Your task to perform on an android device: toggle show notifications on the lock screen Image 0: 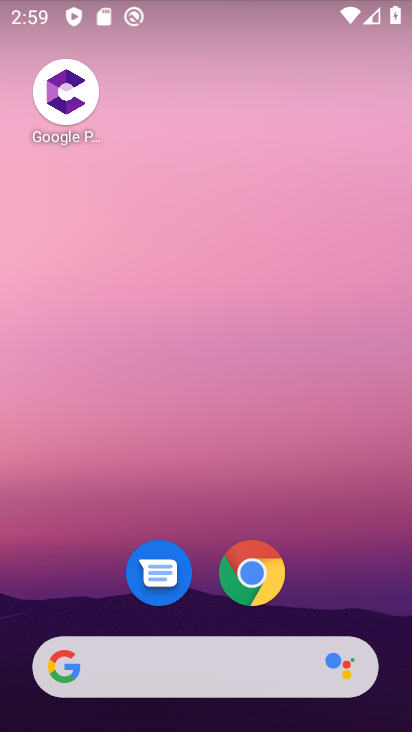
Step 0: drag from (342, 551) to (357, 40)
Your task to perform on an android device: toggle show notifications on the lock screen Image 1: 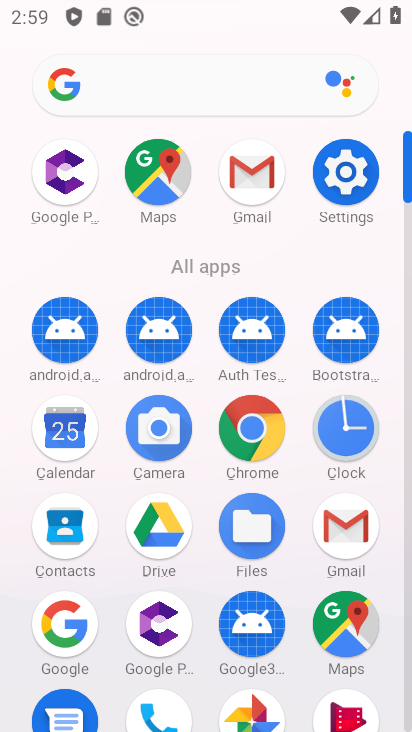
Step 1: click (351, 190)
Your task to perform on an android device: toggle show notifications on the lock screen Image 2: 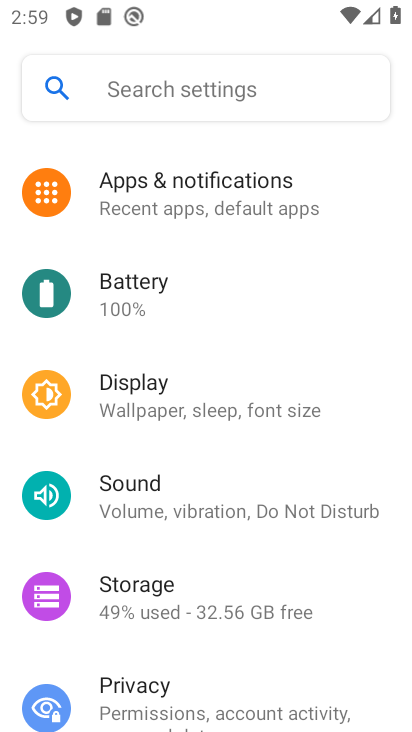
Step 2: click (154, 213)
Your task to perform on an android device: toggle show notifications on the lock screen Image 3: 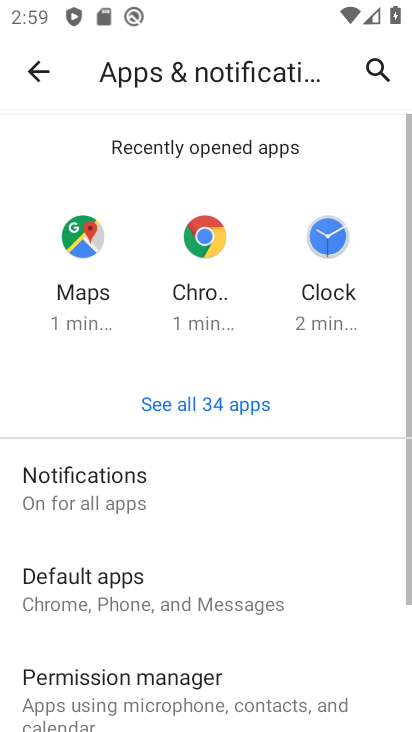
Step 3: click (187, 472)
Your task to perform on an android device: toggle show notifications on the lock screen Image 4: 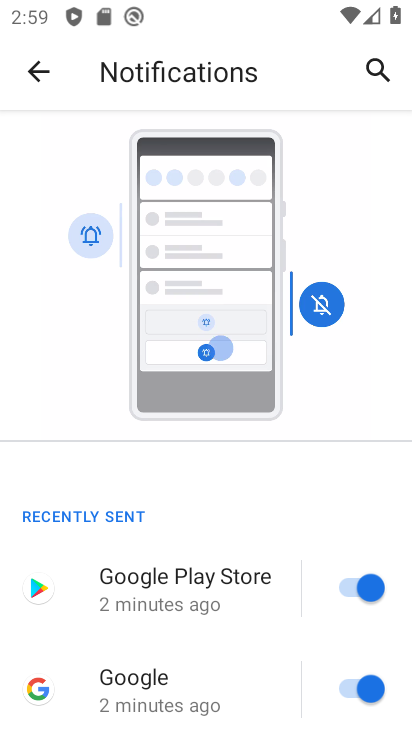
Step 4: drag from (212, 583) to (197, 8)
Your task to perform on an android device: toggle show notifications on the lock screen Image 5: 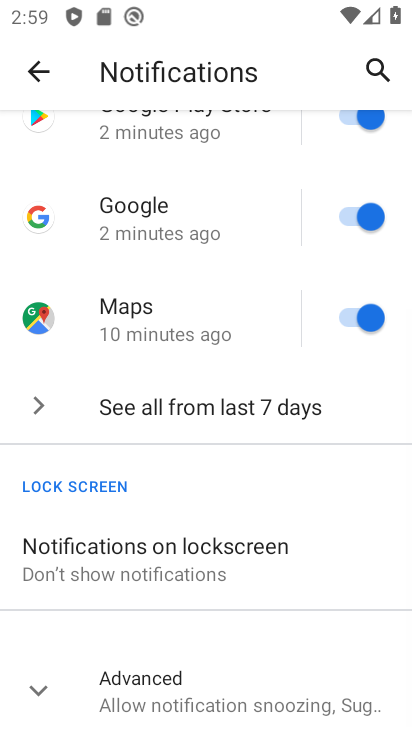
Step 5: click (182, 560)
Your task to perform on an android device: toggle show notifications on the lock screen Image 6: 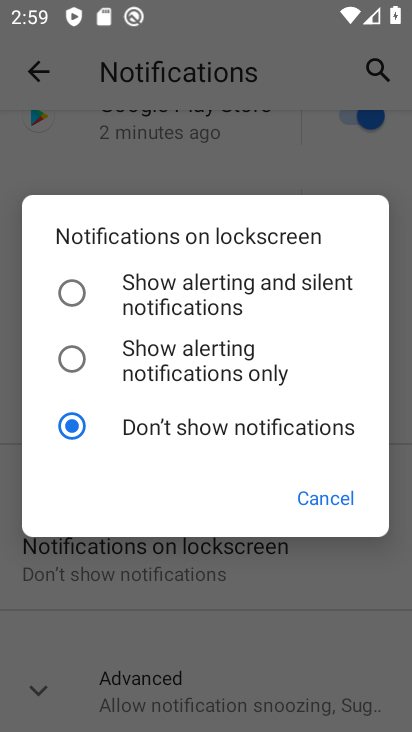
Step 6: click (120, 273)
Your task to perform on an android device: toggle show notifications on the lock screen Image 7: 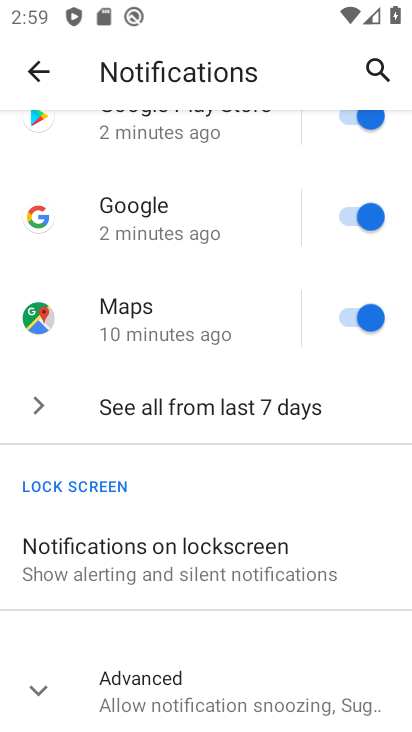
Step 7: task complete